Your task to perform on an android device: open a bookmark in the chrome app Image 0: 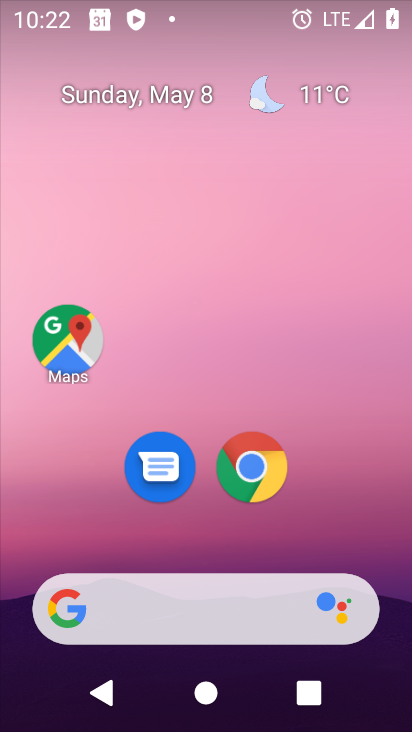
Step 0: click (240, 462)
Your task to perform on an android device: open a bookmark in the chrome app Image 1: 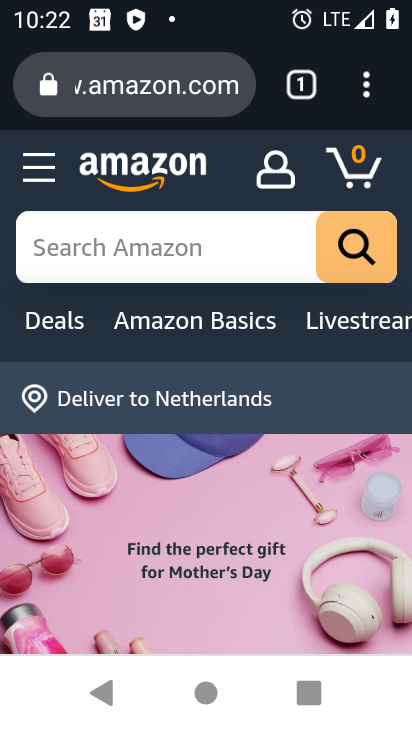
Step 1: click (362, 87)
Your task to perform on an android device: open a bookmark in the chrome app Image 2: 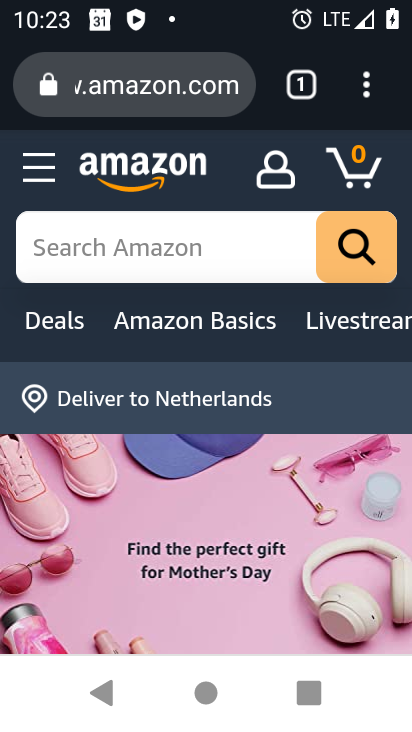
Step 2: click (362, 87)
Your task to perform on an android device: open a bookmark in the chrome app Image 3: 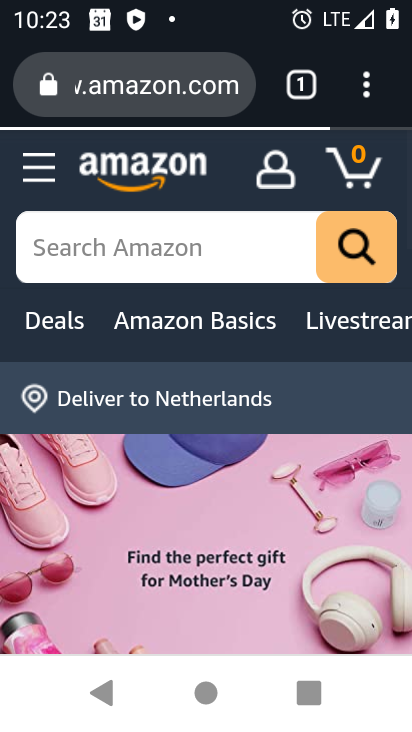
Step 3: click (362, 87)
Your task to perform on an android device: open a bookmark in the chrome app Image 4: 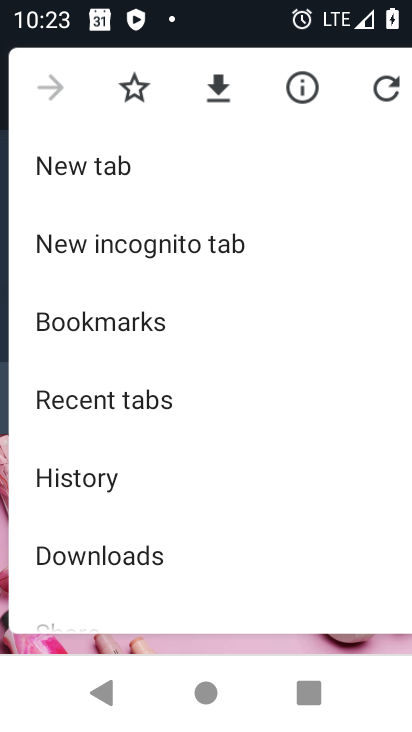
Step 4: click (97, 322)
Your task to perform on an android device: open a bookmark in the chrome app Image 5: 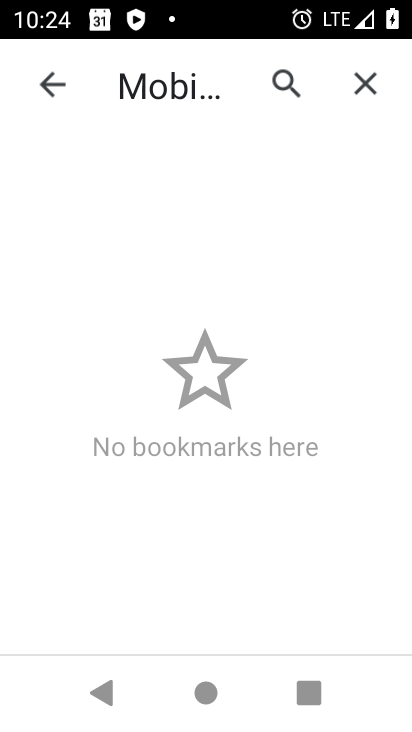
Step 5: task complete